Your task to perform on an android device: Search for vegetarian restaurants on Maps Image 0: 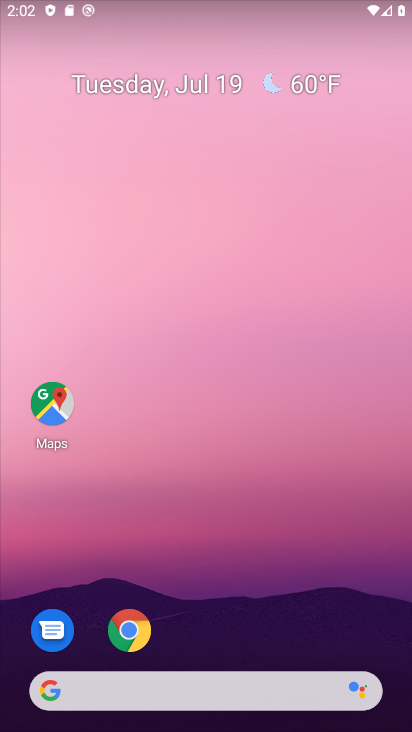
Step 0: drag from (248, 679) to (227, 208)
Your task to perform on an android device: Search for vegetarian restaurants on Maps Image 1: 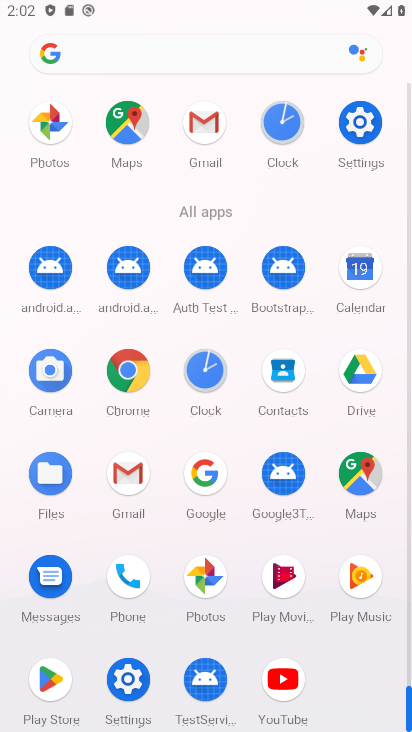
Step 1: click (346, 464)
Your task to perform on an android device: Search for vegetarian restaurants on Maps Image 2: 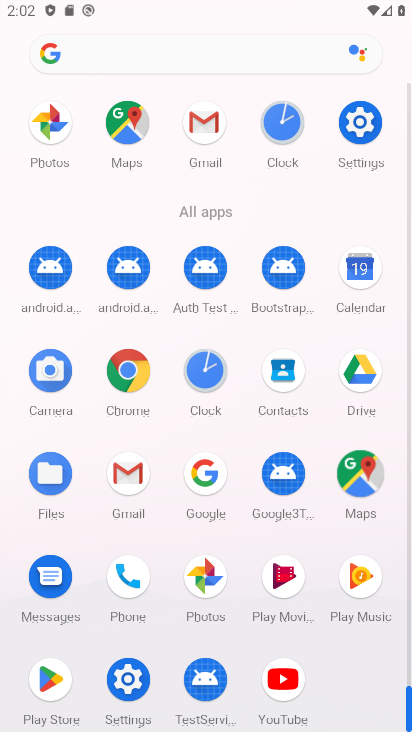
Step 2: click (346, 464)
Your task to perform on an android device: Search for vegetarian restaurants on Maps Image 3: 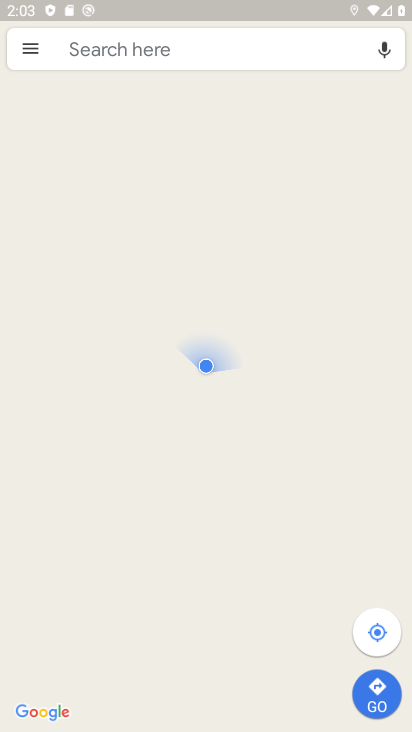
Step 3: click (56, 57)
Your task to perform on an android device: Search for vegetarian restaurants on Maps Image 4: 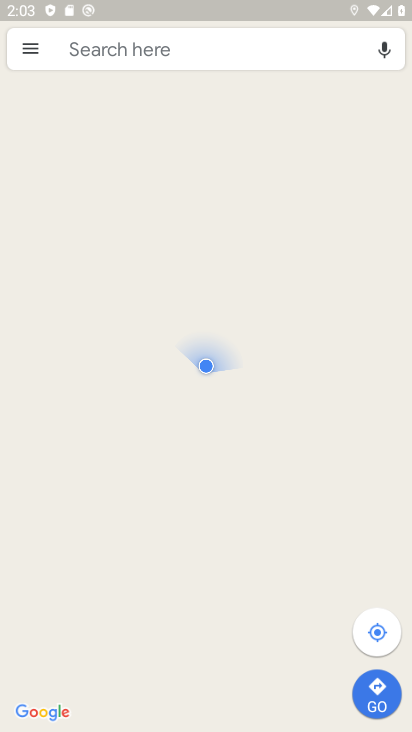
Step 4: click (80, 47)
Your task to perform on an android device: Search for vegetarian restaurants on Maps Image 5: 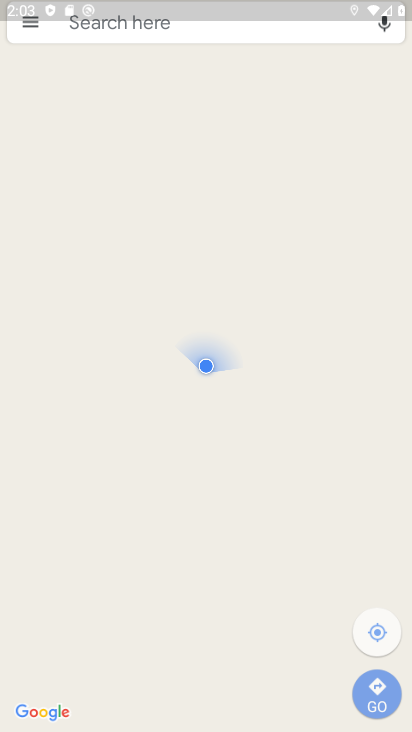
Step 5: click (96, 51)
Your task to perform on an android device: Search for vegetarian restaurants on Maps Image 6: 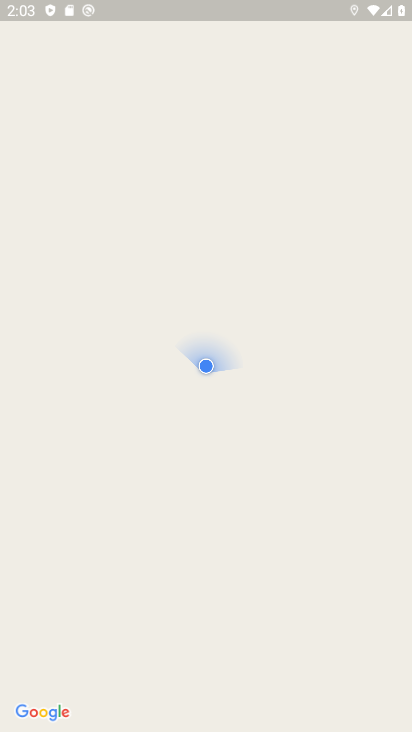
Step 6: click (97, 52)
Your task to perform on an android device: Search for vegetarian restaurants on Maps Image 7: 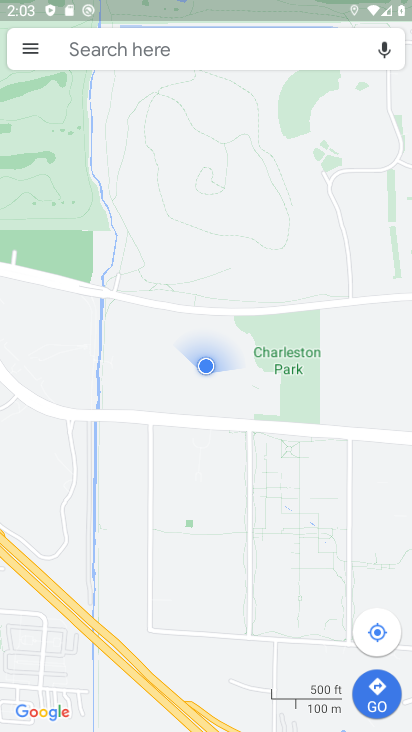
Step 7: click (125, 121)
Your task to perform on an android device: Search for vegetarian restaurants on Maps Image 8: 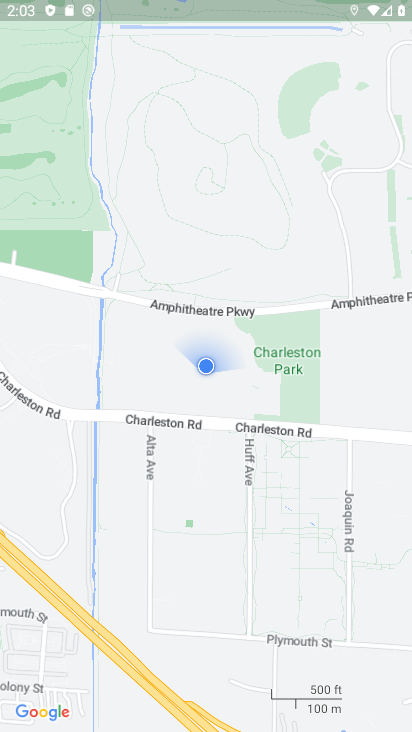
Step 8: click (80, 39)
Your task to perform on an android device: Search for vegetarian restaurants on Maps Image 9: 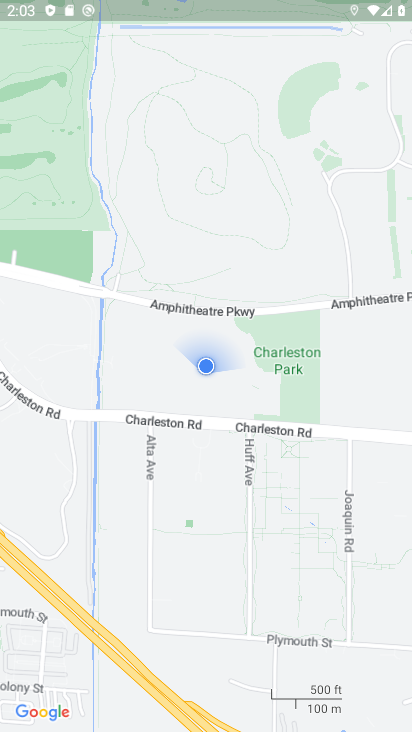
Step 9: click (80, 39)
Your task to perform on an android device: Search for vegetarian restaurants on Maps Image 10: 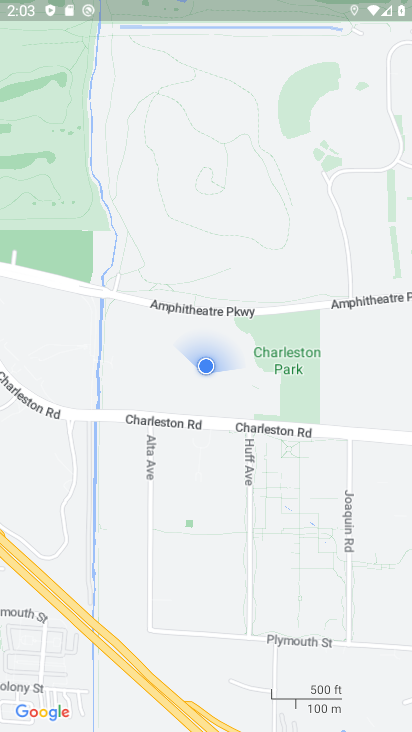
Step 10: click (80, 39)
Your task to perform on an android device: Search for vegetarian restaurants on Maps Image 11: 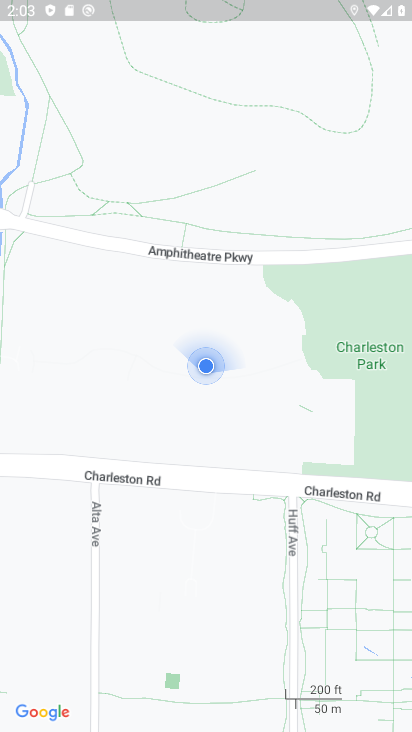
Step 11: click (105, 99)
Your task to perform on an android device: Search for vegetarian restaurants on Maps Image 12: 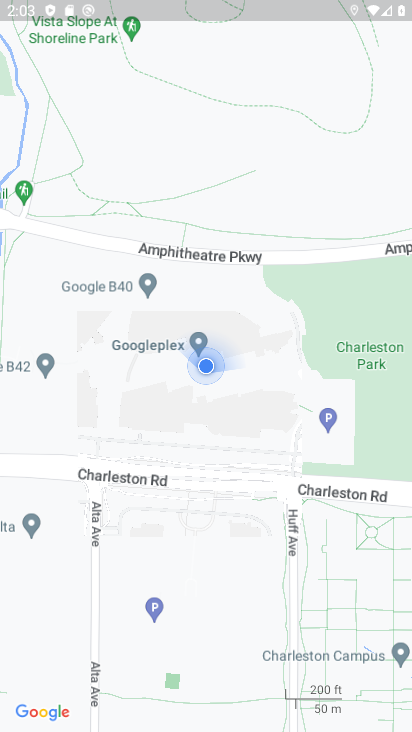
Step 12: click (93, 111)
Your task to perform on an android device: Search for vegetarian restaurants on Maps Image 13: 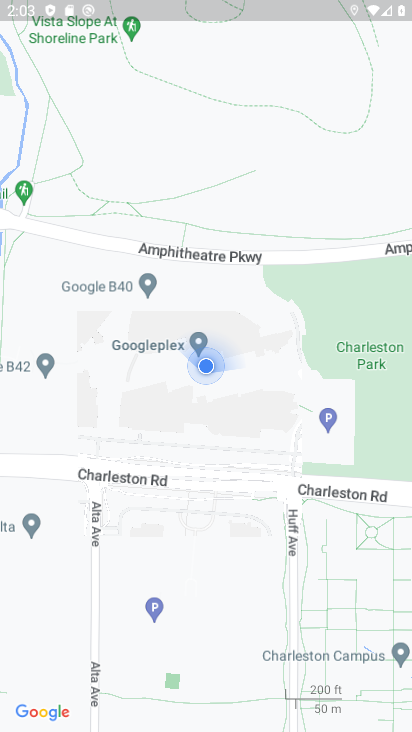
Step 13: click (94, 111)
Your task to perform on an android device: Search for vegetarian restaurants on Maps Image 14: 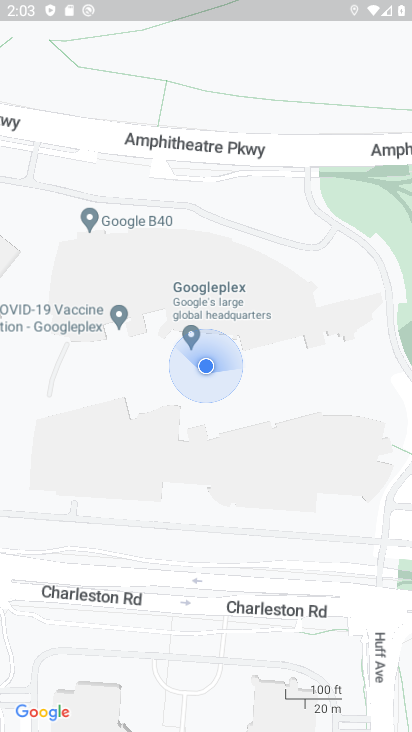
Step 14: click (104, 144)
Your task to perform on an android device: Search for vegetarian restaurants on Maps Image 15: 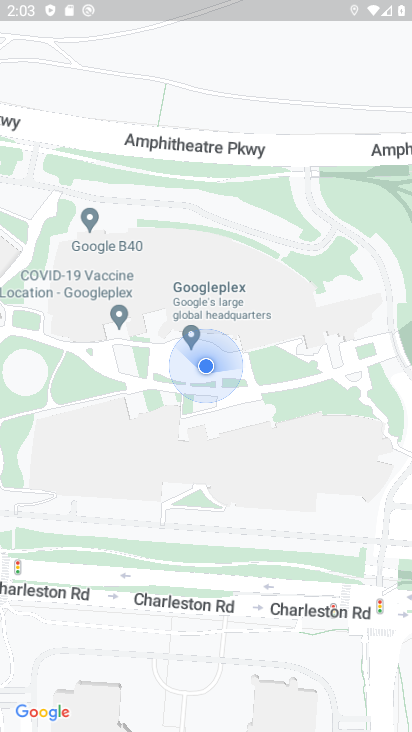
Step 15: click (96, 56)
Your task to perform on an android device: Search for vegetarian restaurants on Maps Image 16: 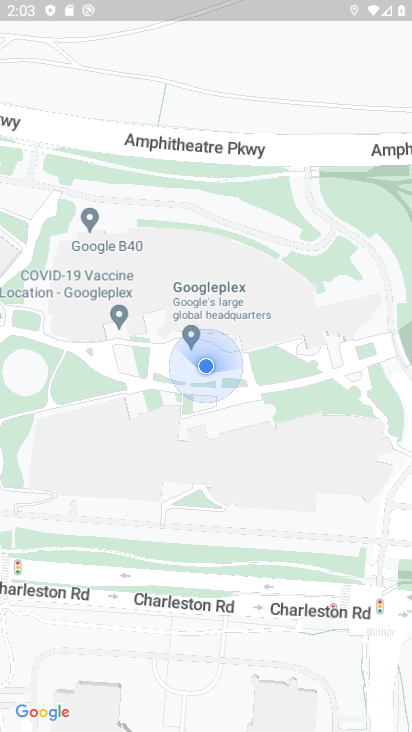
Step 16: click (117, 161)
Your task to perform on an android device: Search for vegetarian restaurants on Maps Image 17: 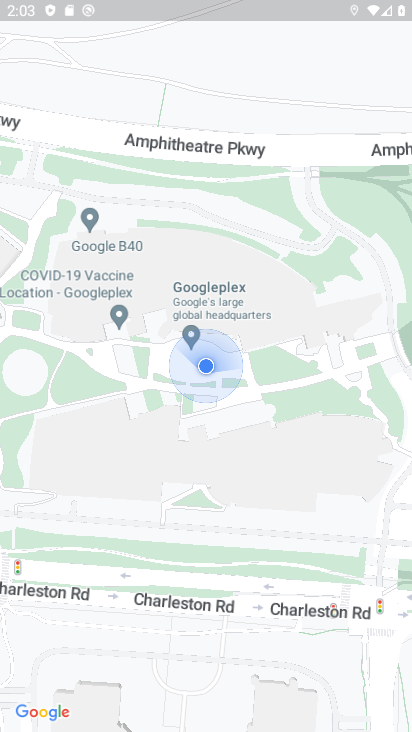
Step 17: click (157, 175)
Your task to perform on an android device: Search for vegetarian restaurants on Maps Image 18: 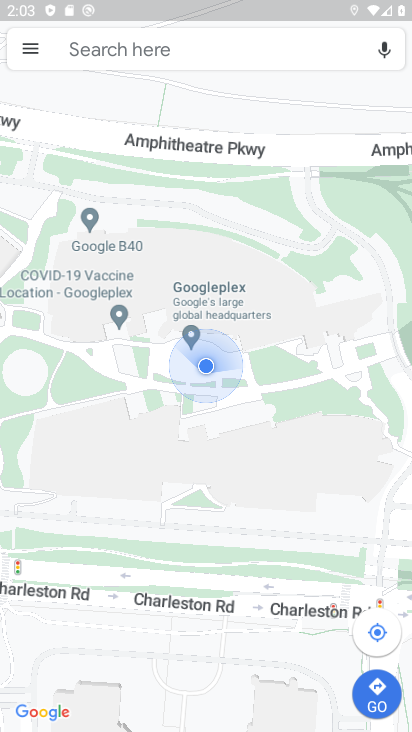
Step 18: click (128, 95)
Your task to perform on an android device: Search for vegetarian restaurants on Maps Image 19: 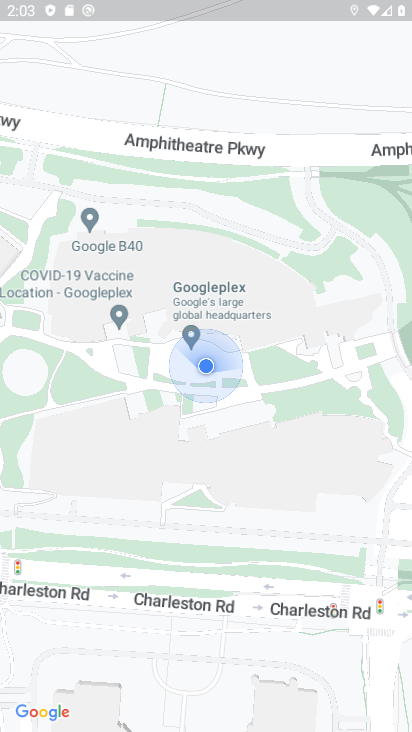
Step 19: click (76, 36)
Your task to perform on an android device: Search for vegetarian restaurants on Maps Image 20: 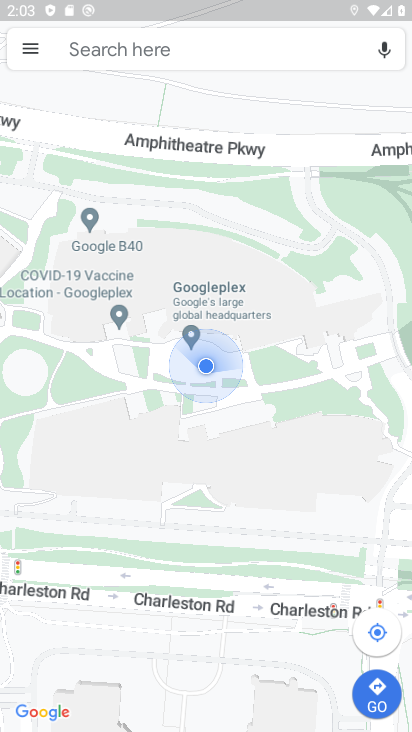
Step 20: click (110, 185)
Your task to perform on an android device: Search for vegetarian restaurants on Maps Image 21: 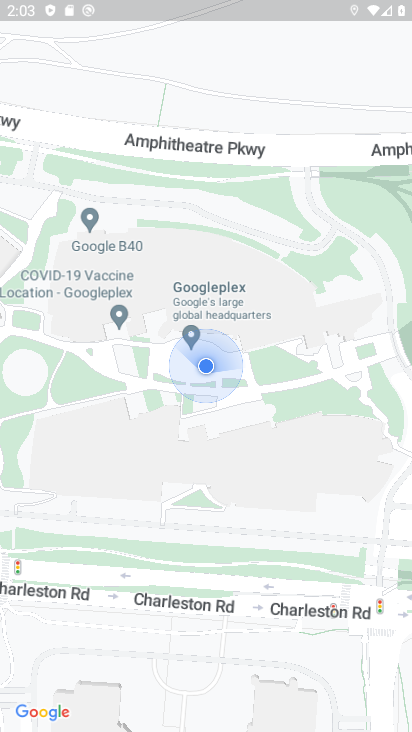
Step 21: click (71, 43)
Your task to perform on an android device: Search for vegetarian restaurants on Maps Image 22: 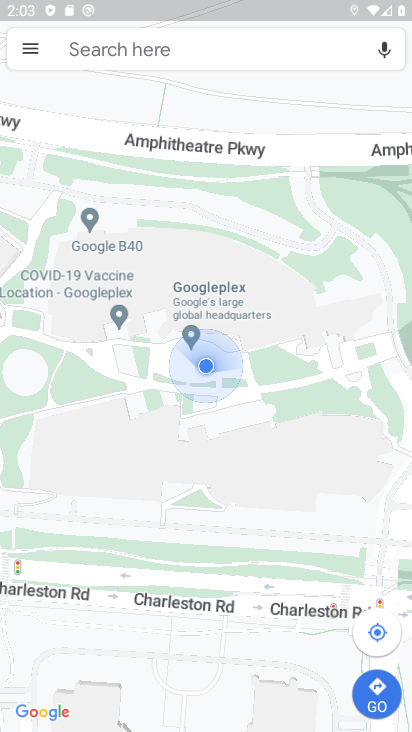
Step 22: task complete